Your task to perform on an android device: Open Reddit.com Image 0: 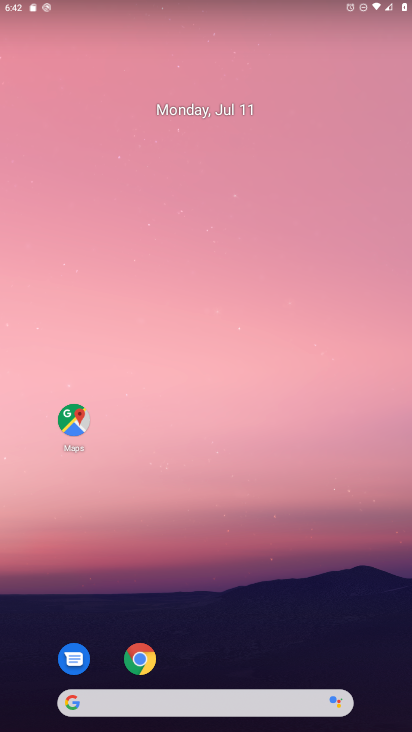
Step 0: click (139, 659)
Your task to perform on an android device: Open Reddit.com Image 1: 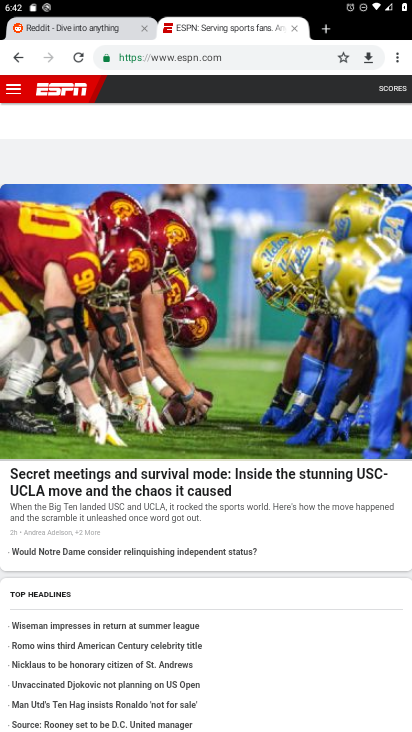
Step 1: click (232, 54)
Your task to perform on an android device: Open Reddit.com Image 2: 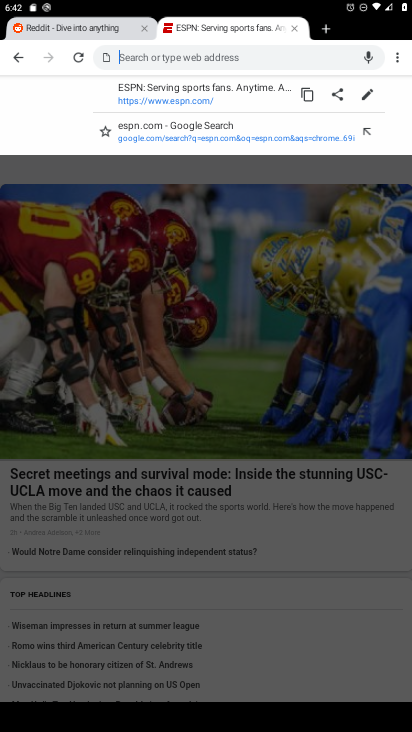
Step 2: type "Reddit.com"
Your task to perform on an android device: Open Reddit.com Image 3: 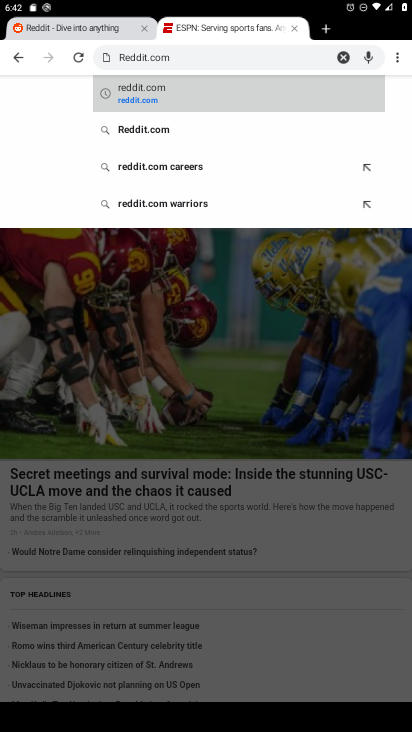
Step 3: click (141, 95)
Your task to perform on an android device: Open Reddit.com Image 4: 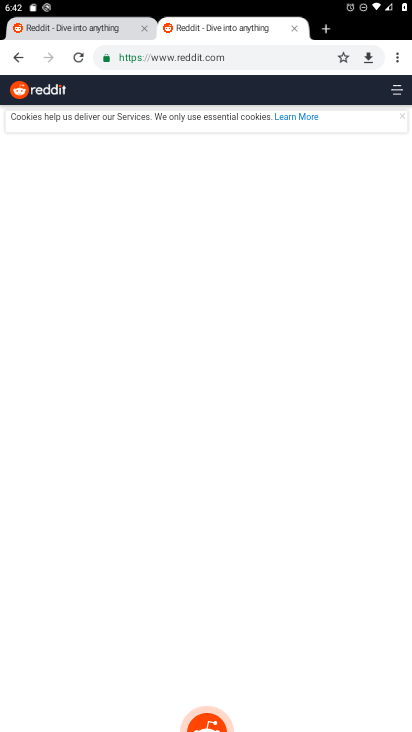
Step 4: task complete